Your task to perform on an android device: Go to settings Image 0: 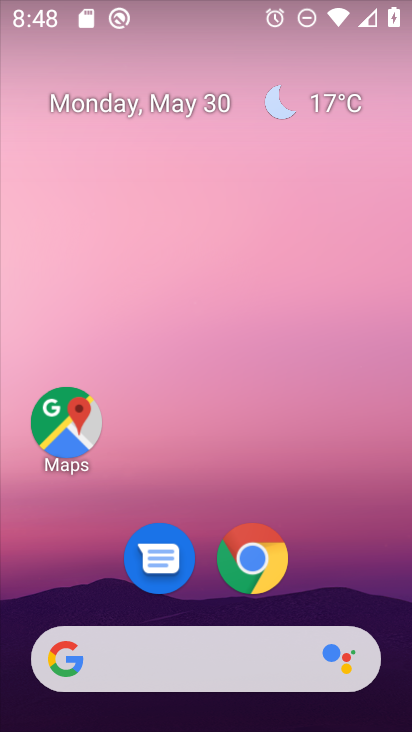
Step 0: drag from (341, 476) to (177, 15)
Your task to perform on an android device: Go to settings Image 1: 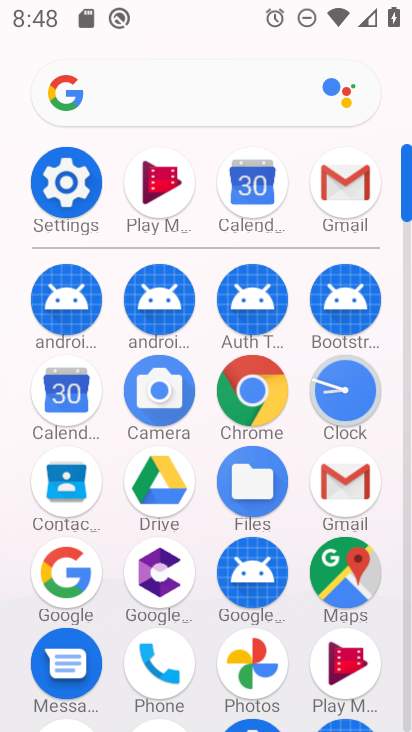
Step 1: click (72, 180)
Your task to perform on an android device: Go to settings Image 2: 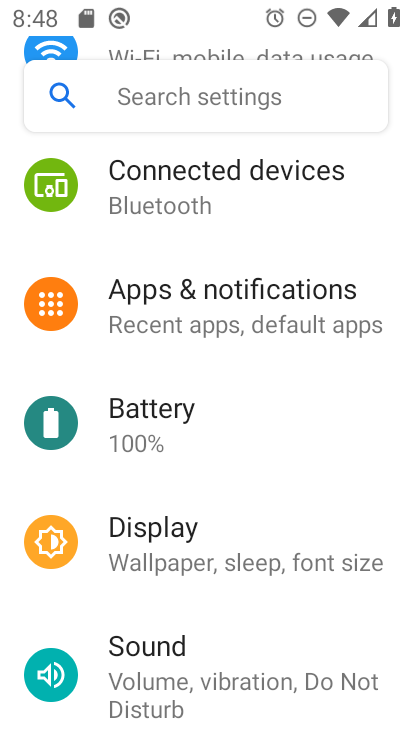
Step 2: task complete